Your task to perform on an android device: find photos in the google photos app Image 0: 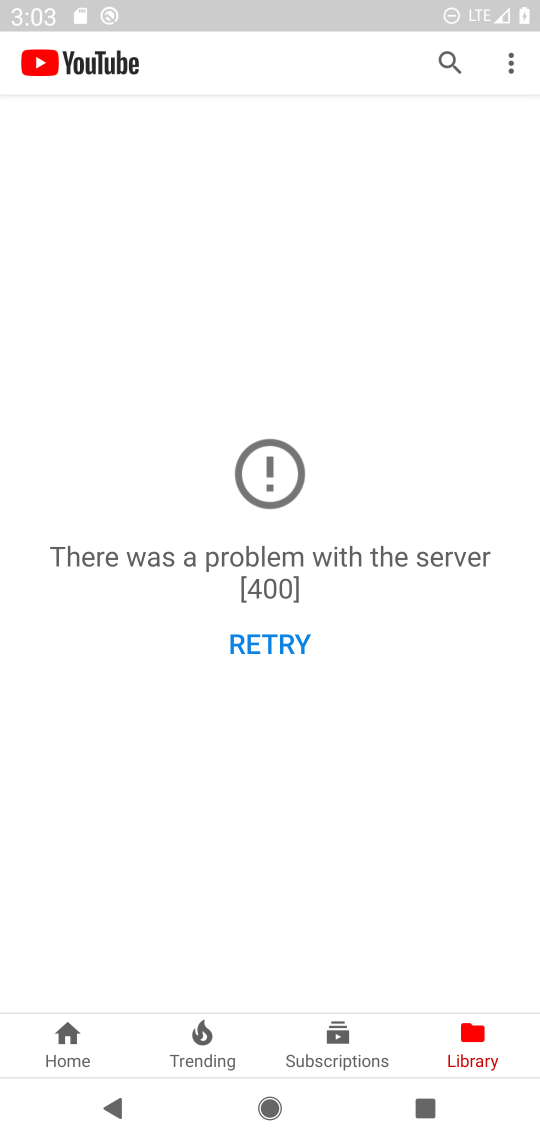
Step 0: press home button
Your task to perform on an android device: find photos in the google photos app Image 1: 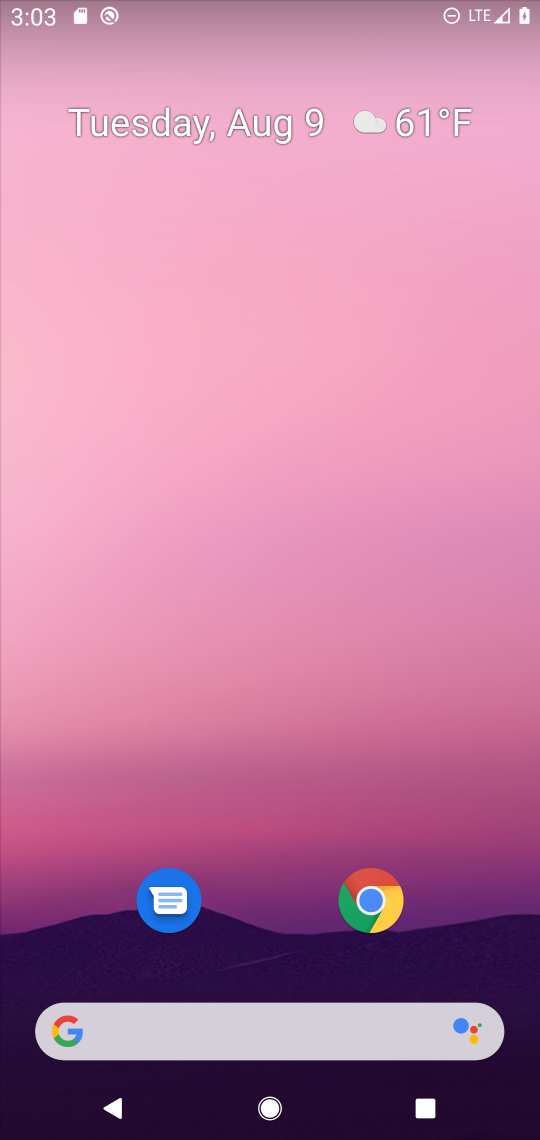
Step 1: drag from (465, 864) to (459, 279)
Your task to perform on an android device: find photos in the google photos app Image 2: 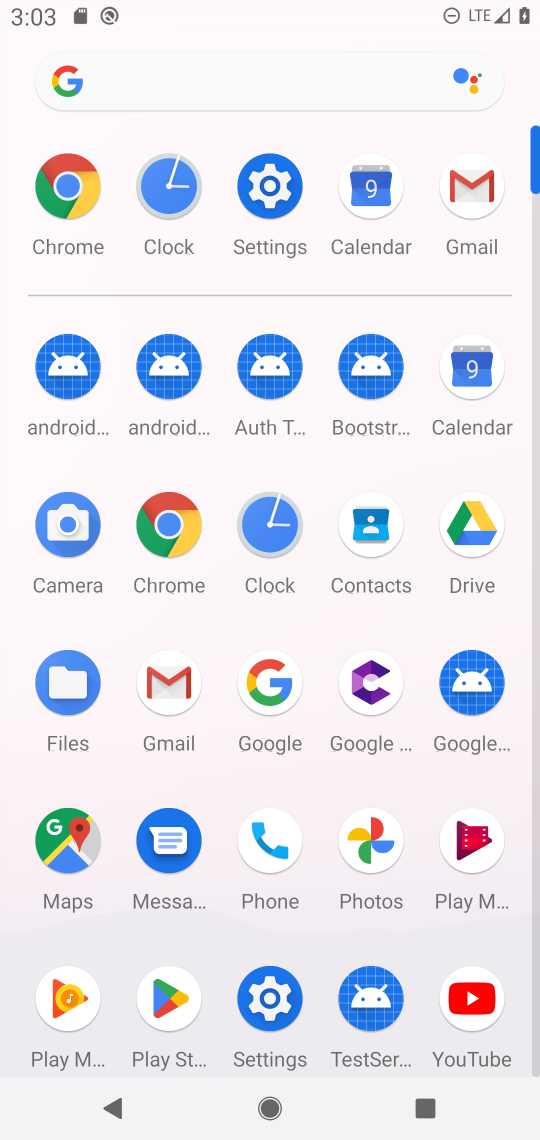
Step 2: click (375, 844)
Your task to perform on an android device: find photos in the google photos app Image 3: 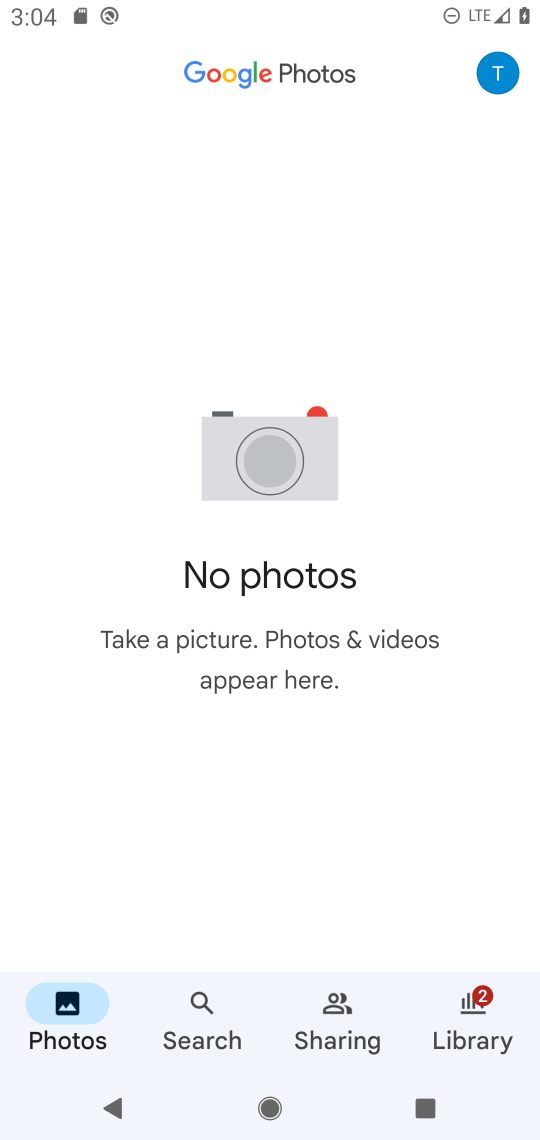
Step 3: task complete